Your task to perform on an android device: clear all cookies in the chrome app Image 0: 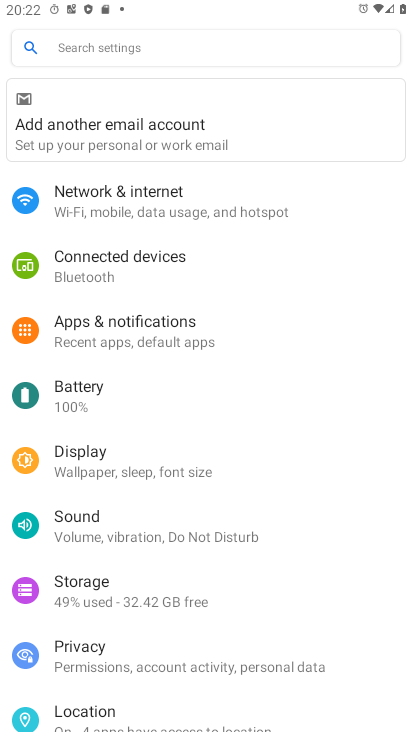
Step 0: press home button
Your task to perform on an android device: clear all cookies in the chrome app Image 1: 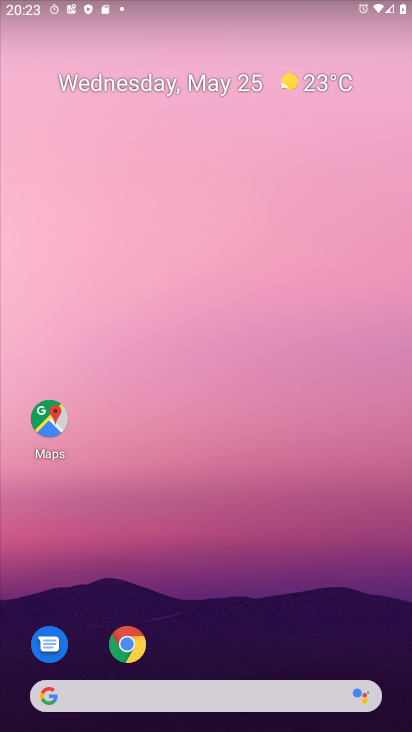
Step 1: drag from (245, 724) to (341, 78)
Your task to perform on an android device: clear all cookies in the chrome app Image 2: 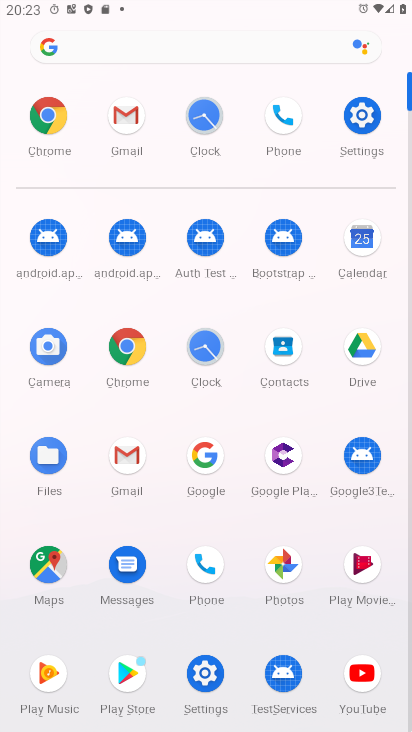
Step 2: click (52, 118)
Your task to perform on an android device: clear all cookies in the chrome app Image 3: 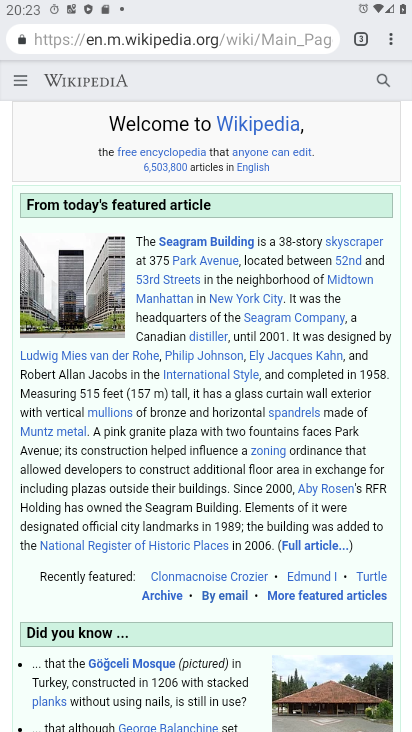
Step 3: click (388, 43)
Your task to perform on an android device: clear all cookies in the chrome app Image 4: 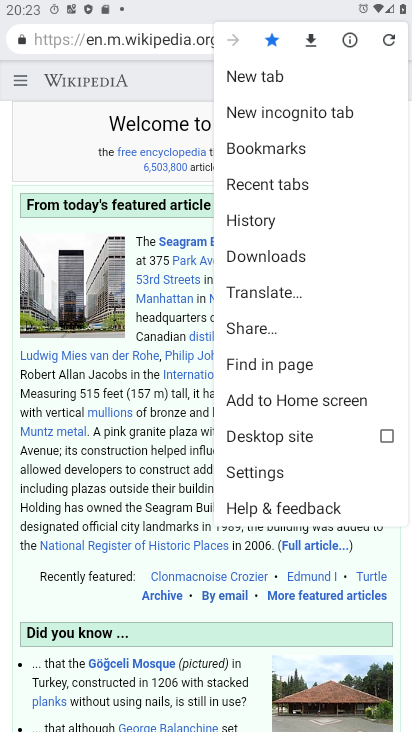
Step 4: click (250, 470)
Your task to perform on an android device: clear all cookies in the chrome app Image 5: 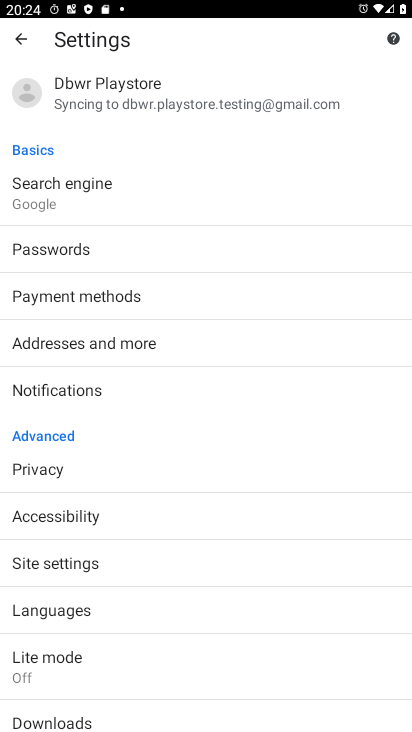
Step 5: click (93, 562)
Your task to perform on an android device: clear all cookies in the chrome app Image 6: 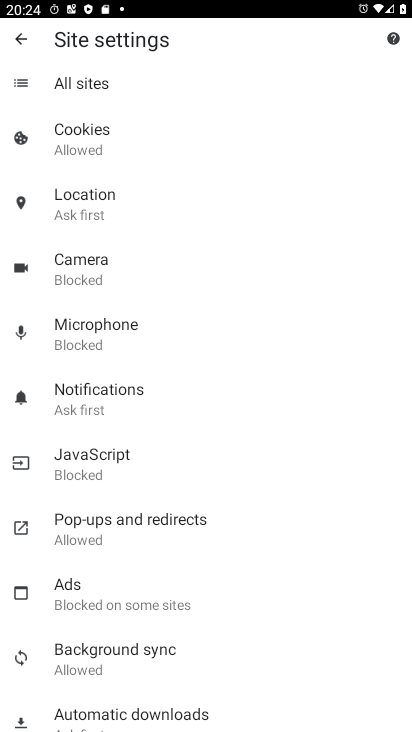
Step 6: click (125, 140)
Your task to perform on an android device: clear all cookies in the chrome app Image 7: 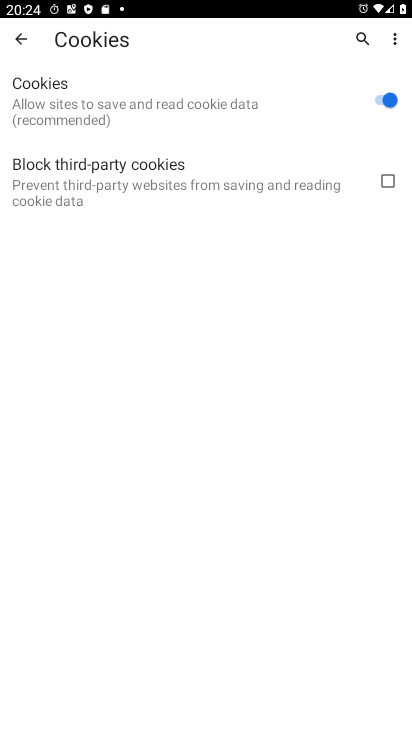
Step 7: click (20, 34)
Your task to perform on an android device: clear all cookies in the chrome app Image 8: 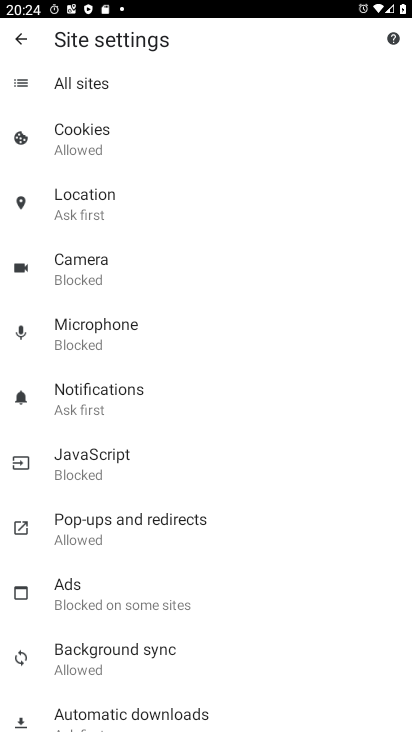
Step 8: click (27, 44)
Your task to perform on an android device: clear all cookies in the chrome app Image 9: 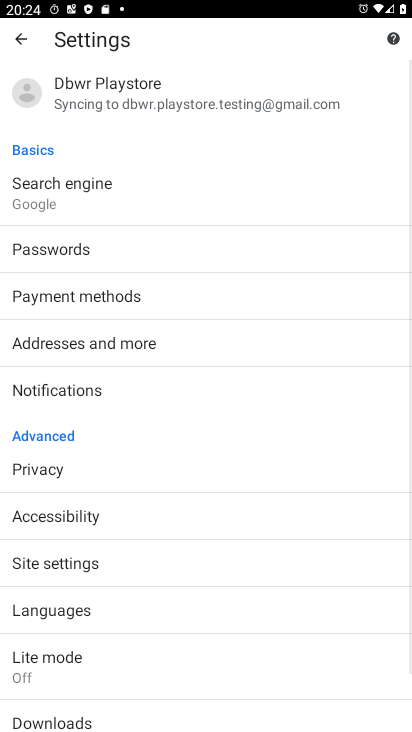
Step 9: click (64, 477)
Your task to perform on an android device: clear all cookies in the chrome app Image 10: 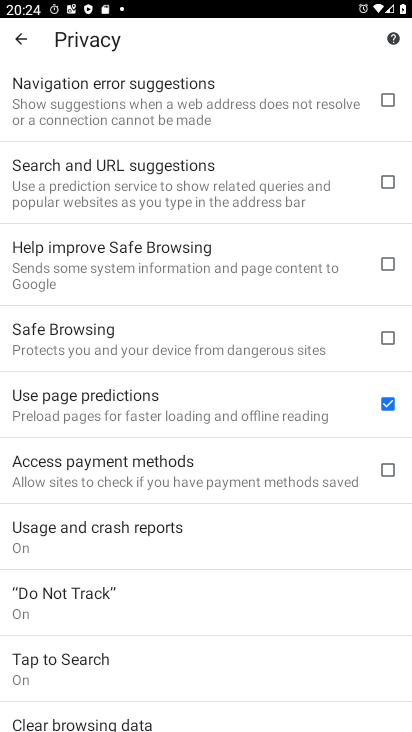
Step 10: click (134, 727)
Your task to perform on an android device: clear all cookies in the chrome app Image 11: 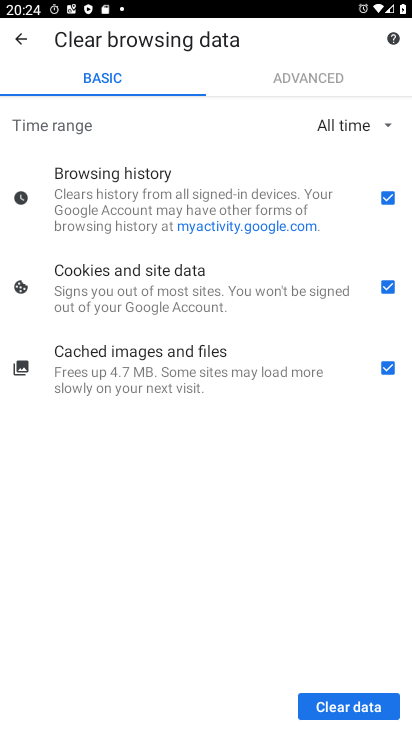
Step 11: click (347, 705)
Your task to perform on an android device: clear all cookies in the chrome app Image 12: 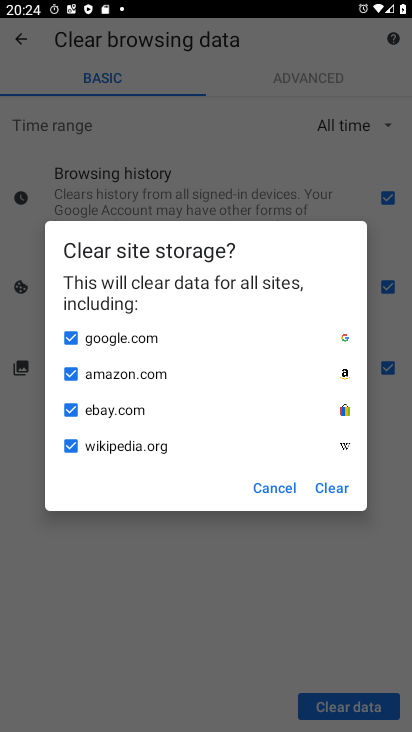
Step 12: task complete